Your task to perform on an android device: Go to internet settings Image 0: 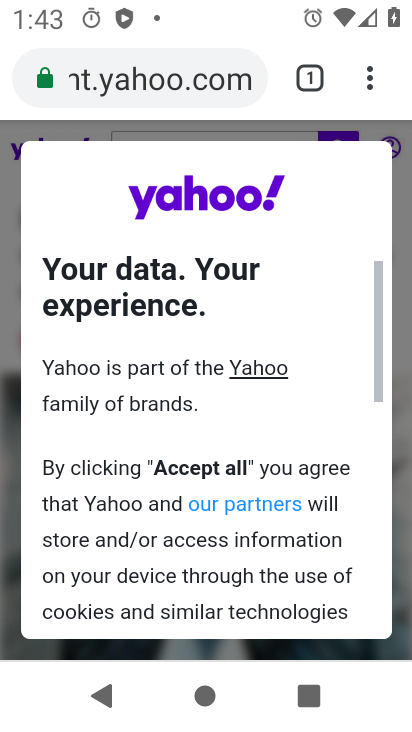
Step 0: press home button
Your task to perform on an android device: Go to internet settings Image 1: 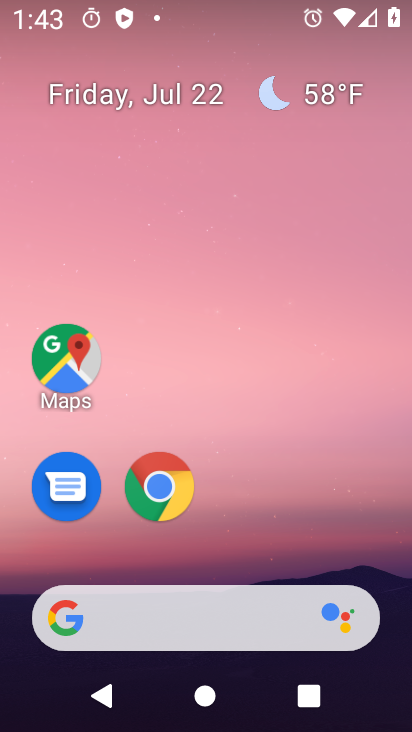
Step 1: drag from (302, 482) to (357, 71)
Your task to perform on an android device: Go to internet settings Image 2: 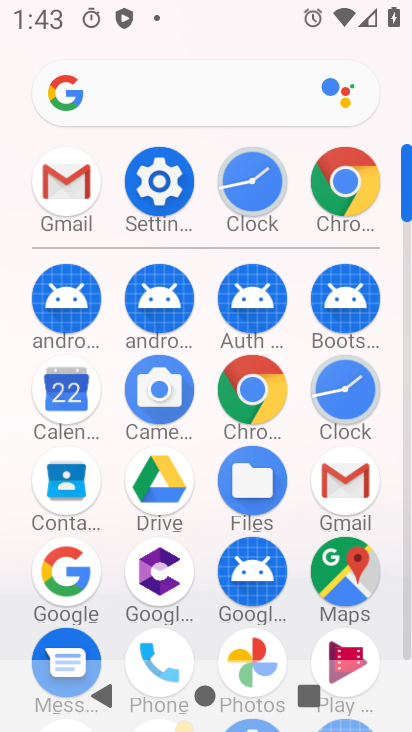
Step 2: click (163, 189)
Your task to perform on an android device: Go to internet settings Image 3: 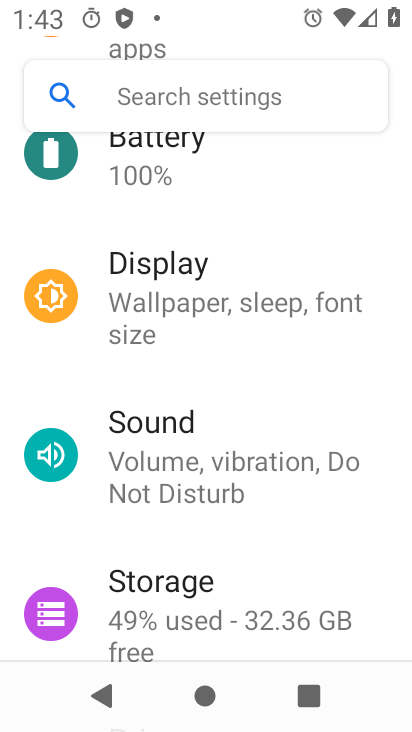
Step 3: drag from (346, 180) to (353, 273)
Your task to perform on an android device: Go to internet settings Image 4: 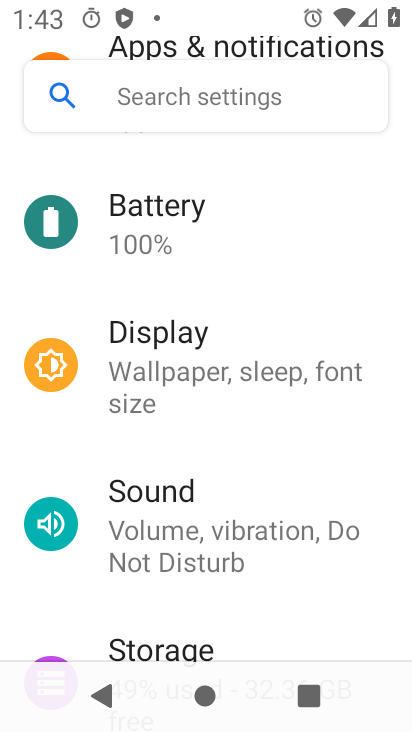
Step 4: drag from (347, 181) to (345, 247)
Your task to perform on an android device: Go to internet settings Image 5: 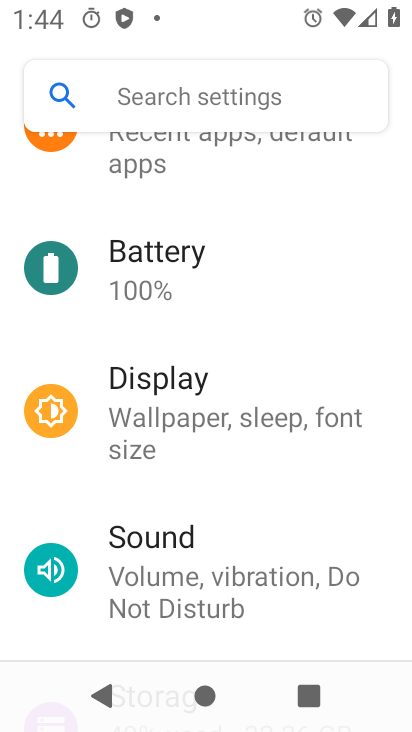
Step 5: drag from (344, 192) to (342, 275)
Your task to perform on an android device: Go to internet settings Image 6: 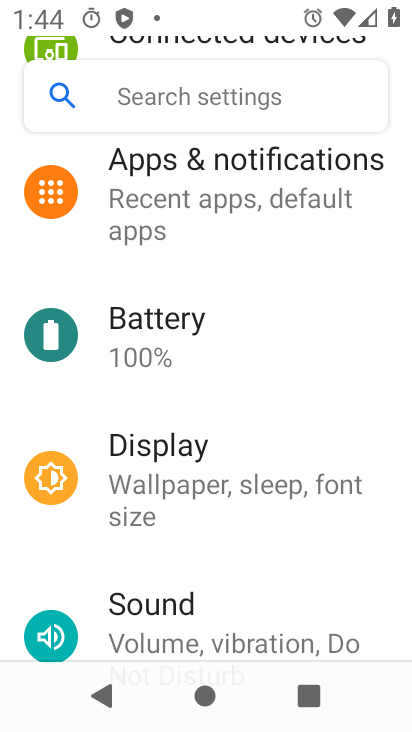
Step 6: drag from (348, 238) to (345, 332)
Your task to perform on an android device: Go to internet settings Image 7: 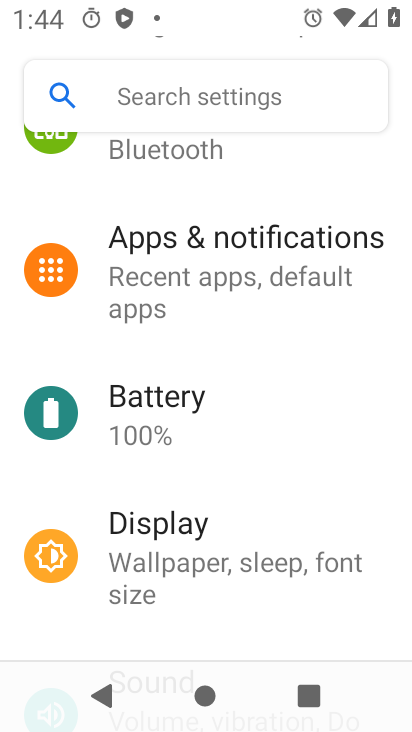
Step 7: drag from (365, 188) to (359, 283)
Your task to perform on an android device: Go to internet settings Image 8: 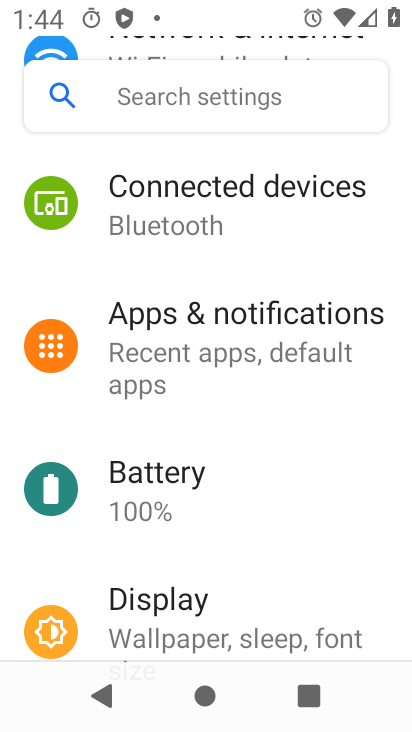
Step 8: drag from (380, 166) to (370, 262)
Your task to perform on an android device: Go to internet settings Image 9: 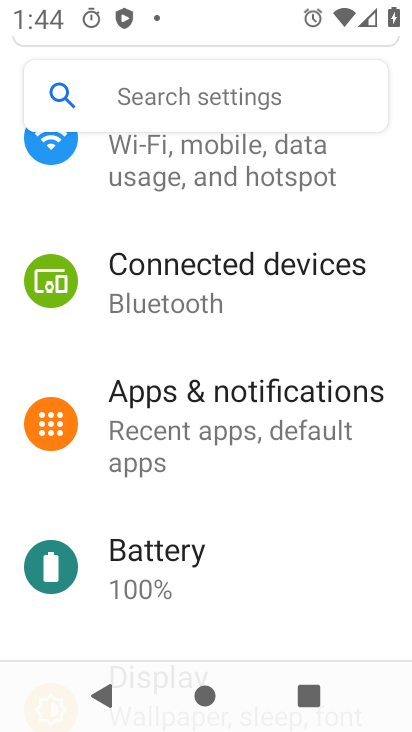
Step 9: drag from (364, 168) to (356, 270)
Your task to perform on an android device: Go to internet settings Image 10: 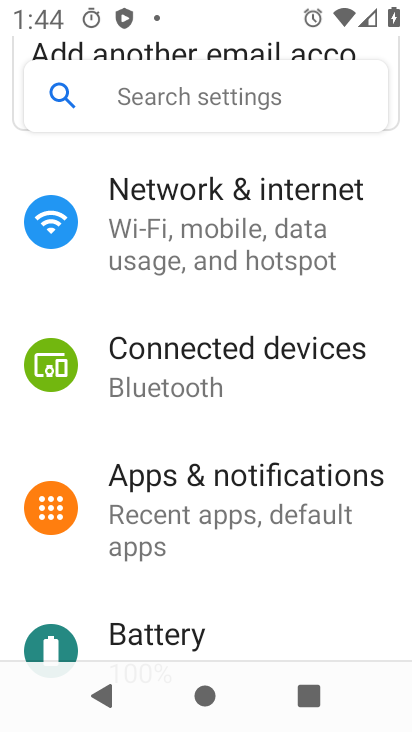
Step 10: click (354, 205)
Your task to perform on an android device: Go to internet settings Image 11: 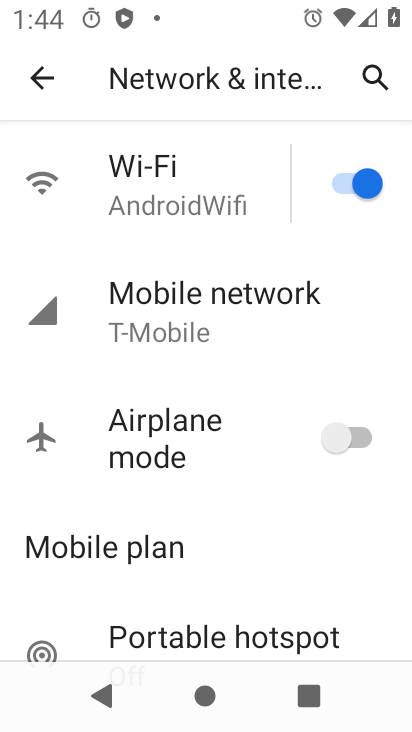
Step 11: task complete